Your task to perform on an android device: Open Chrome and go to settings Image 0: 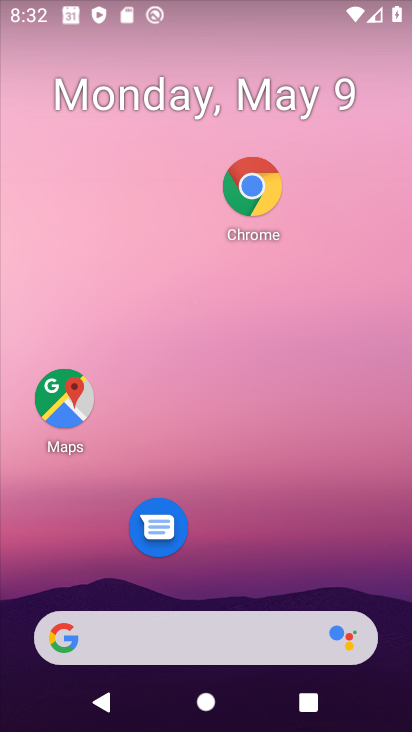
Step 0: drag from (210, 586) to (204, 30)
Your task to perform on an android device: Open Chrome and go to settings Image 1: 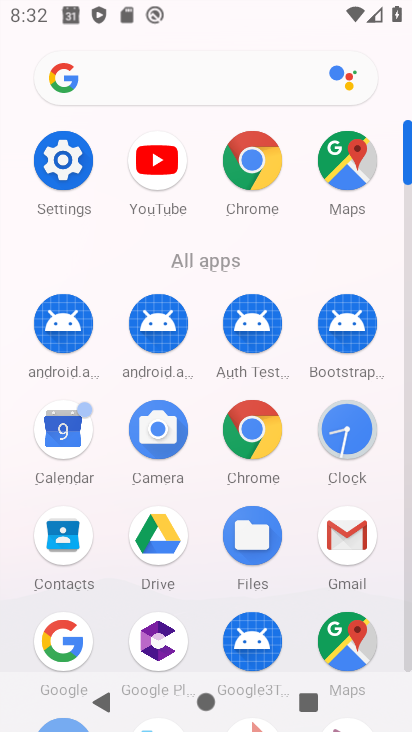
Step 1: click (246, 154)
Your task to perform on an android device: Open Chrome and go to settings Image 2: 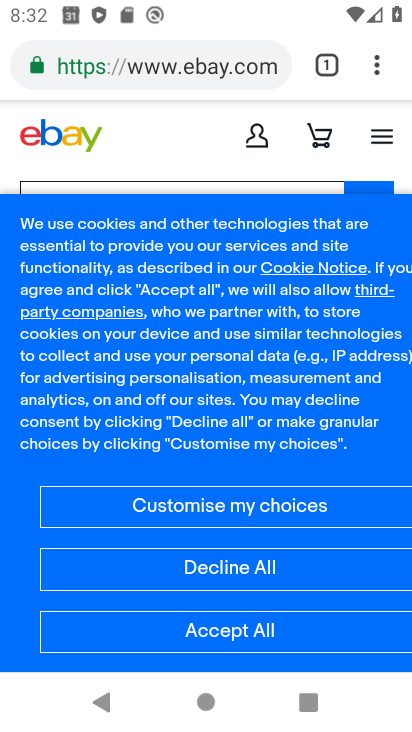
Step 2: click (368, 65)
Your task to perform on an android device: Open Chrome and go to settings Image 3: 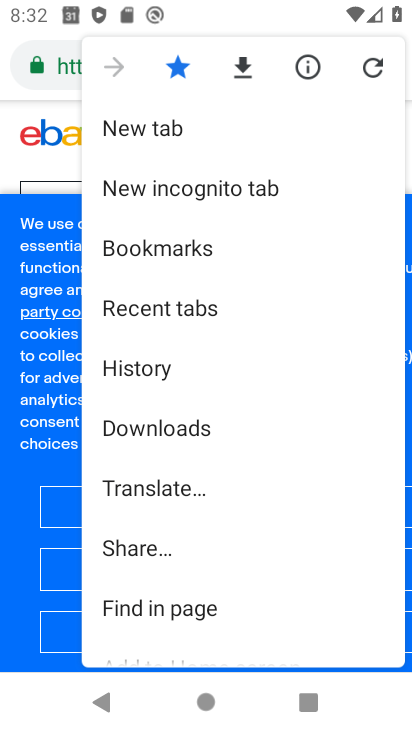
Step 3: drag from (208, 601) to (216, 113)
Your task to perform on an android device: Open Chrome and go to settings Image 4: 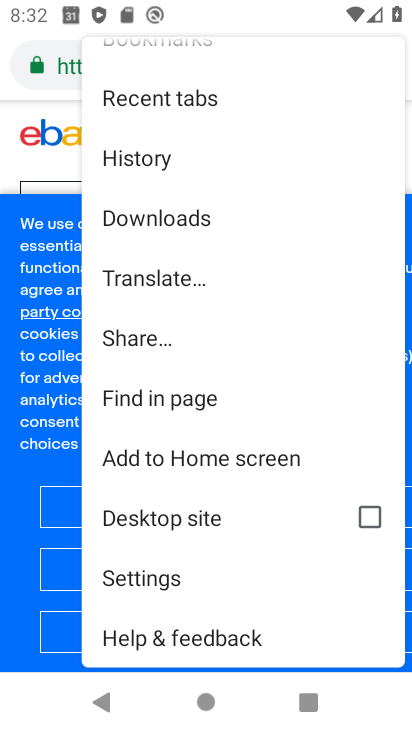
Step 4: click (189, 578)
Your task to perform on an android device: Open Chrome and go to settings Image 5: 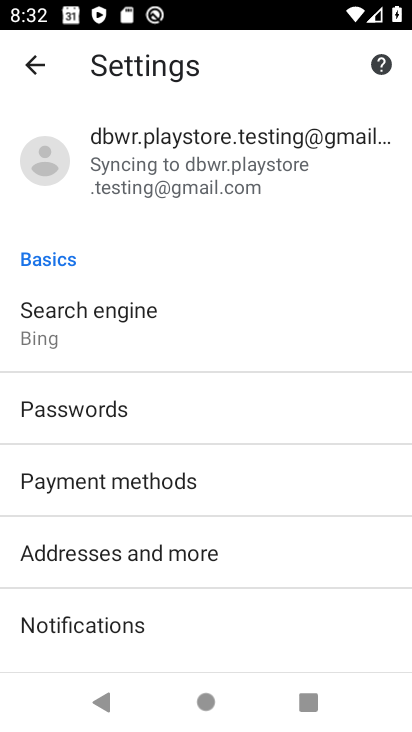
Step 5: task complete